Your task to perform on an android device: Open the phone app and click the voicemail tab. Image 0: 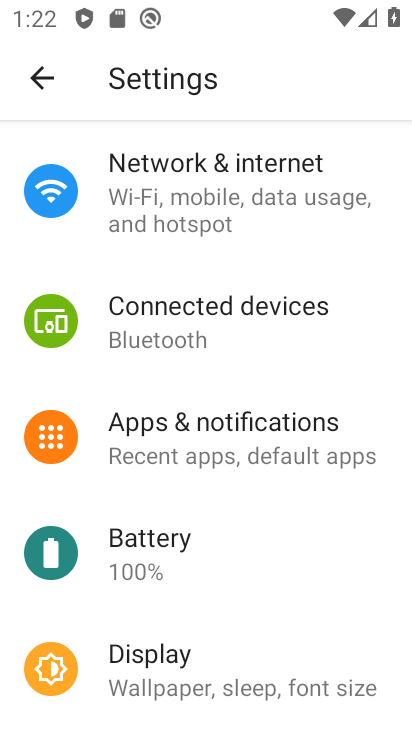
Step 0: press home button
Your task to perform on an android device: Open the phone app and click the voicemail tab. Image 1: 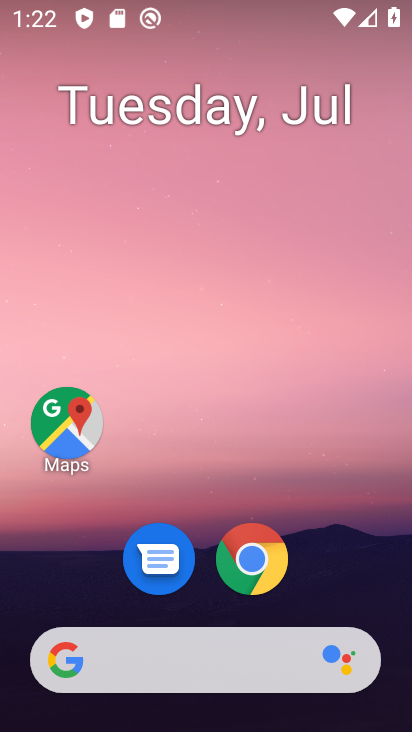
Step 1: drag from (357, 587) to (354, 84)
Your task to perform on an android device: Open the phone app and click the voicemail tab. Image 2: 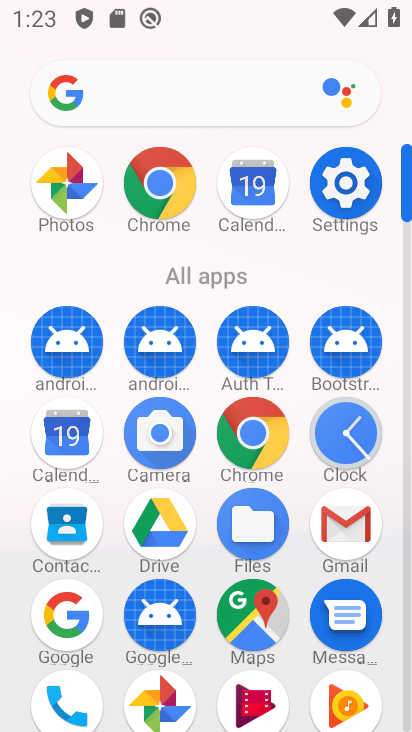
Step 2: drag from (388, 591) to (390, 385)
Your task to perform on an android device: Open the phone app and click the voicemail tab. Image 3: 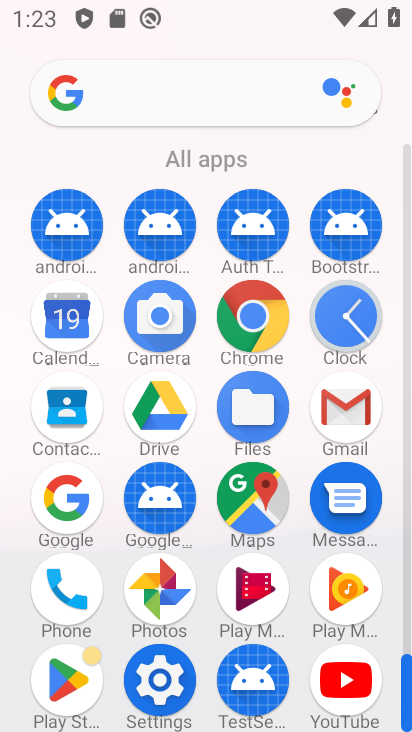
Step 3: click (72, 589)
Your task to perform on an android device: Open the phone app and click the voicemail tab. Image 4: 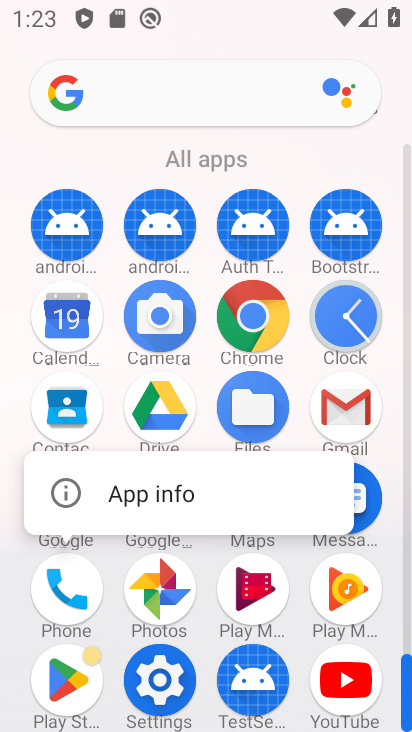
Step 4: click (72, 589)
Your task to perform on an android device: Open the phone app and click the voicemail tab. Image 5: 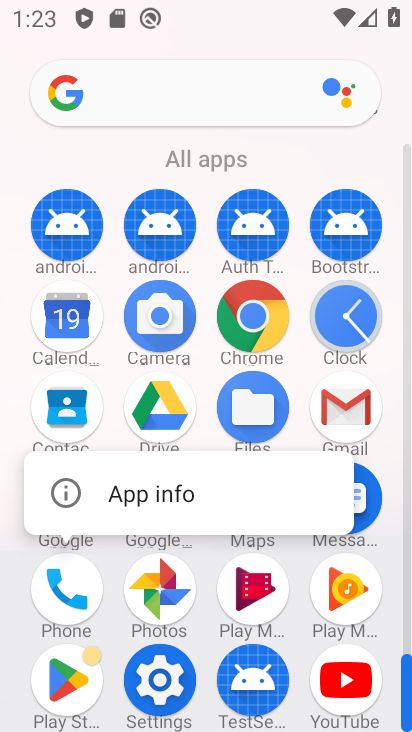
Step 5: click (72, 589)
Your task to perform on an android device: Open the phone app and click the voicemail tab. Image 6: 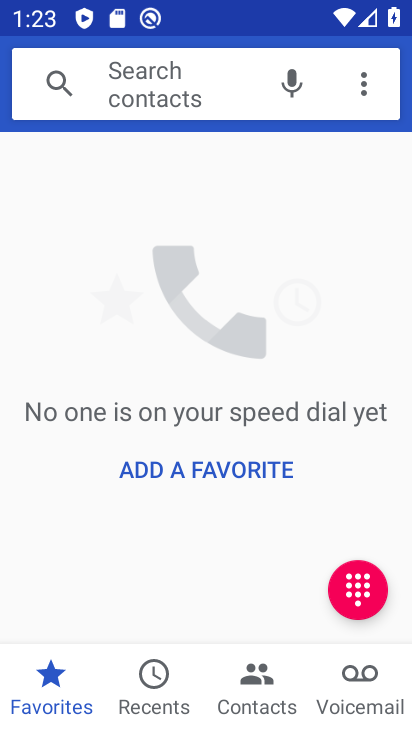
Step 6: click (353, 692)
Your task to perform on an android device: Open the phone app and click the voicemail tab. Image 7: 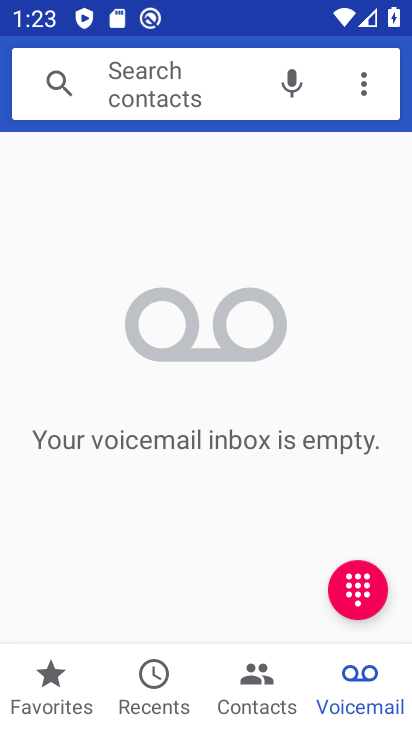
Step 7: task complete